Your task to perform on an android device: open device folders in google photos Image 0: 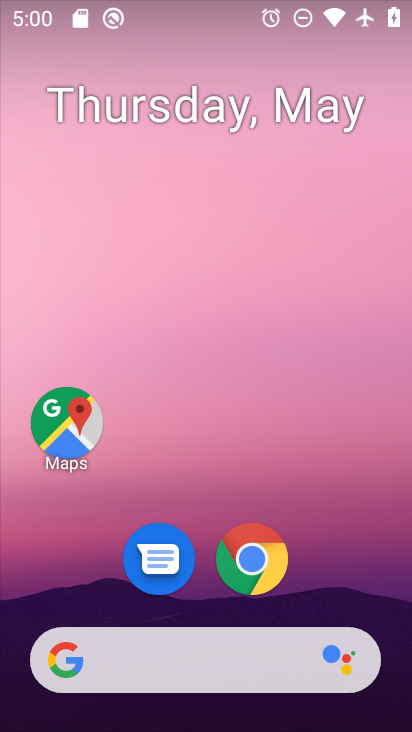
Step 0: drag from (342, 511) to (165, 18)
Your task to perform on an android device: open device folders in google photos Image 1: 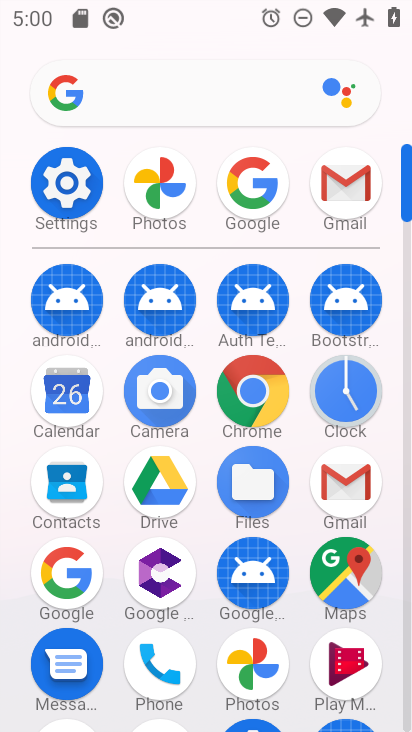
Step 1: click (246, 672)
Your task to perform on an android device: open device folders in google photos Image 2: 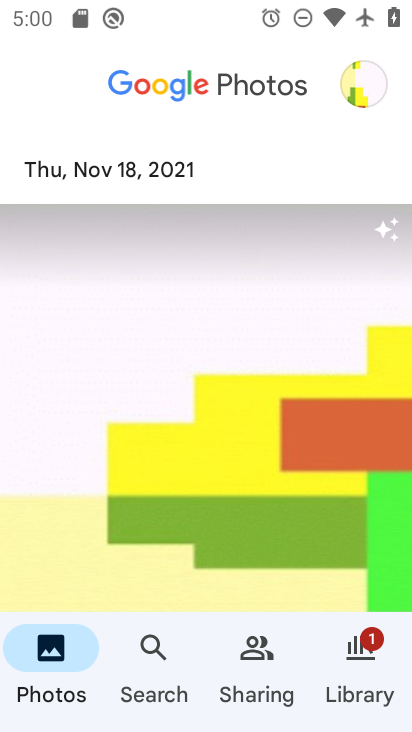
Step 2: click (175, 651)
Your task to perform on an android device: open device folders in google photos Image 3: 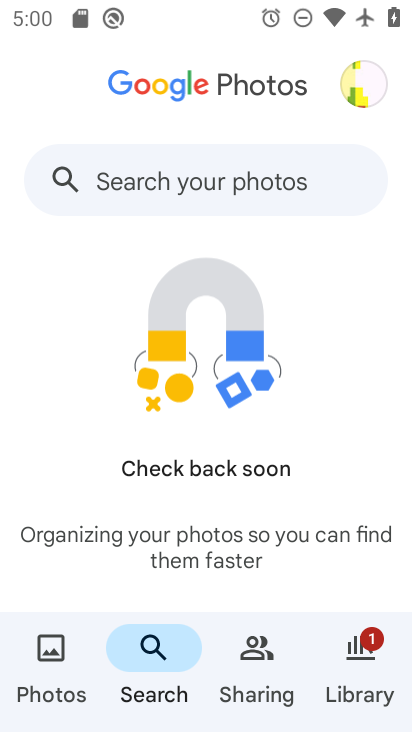
Step 3: click (136, 177)
Your task to perform on an android device: open device folders in google photos Image 4: 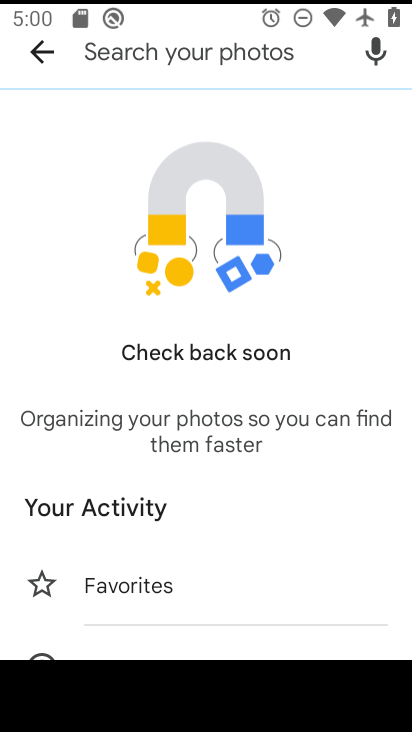
Step 4: type "device folders"
Your task to perform on an android device: open device folders in google photos Image 5: 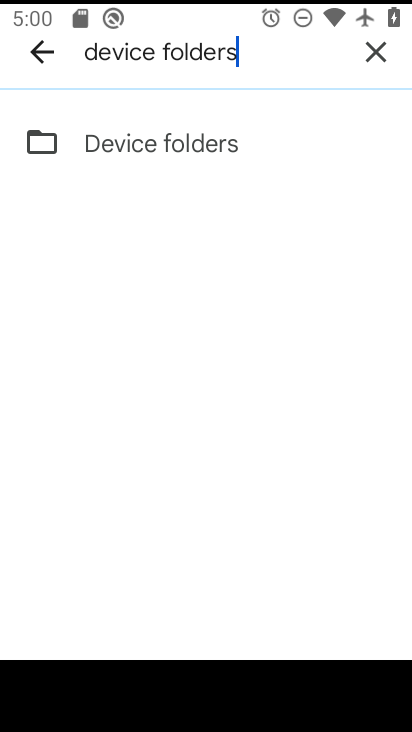
Step 5: click (163, 140)
Your task to perform on an android device: open device folders in google photos Image 6: 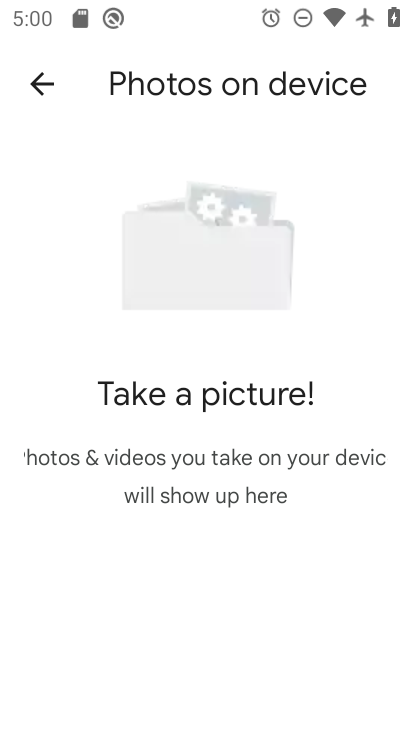
Step 6: task complete